Your task to perform on an android device: turn on javascript in the chrome app Image 0: 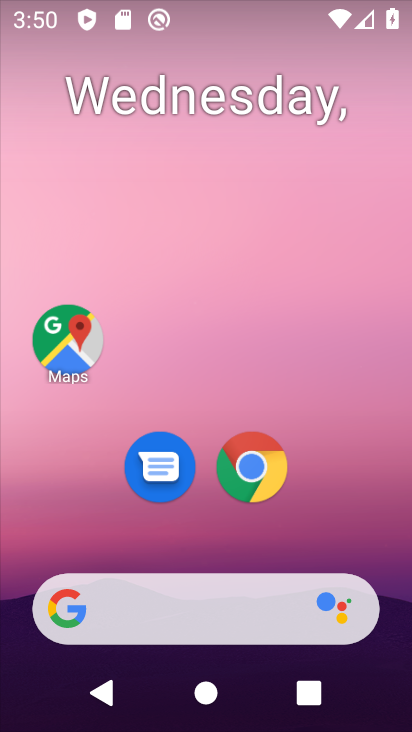
Step 0: click (276, 480)
Your task to perform on an android device: turn on javascript in the chrome app Image 1: 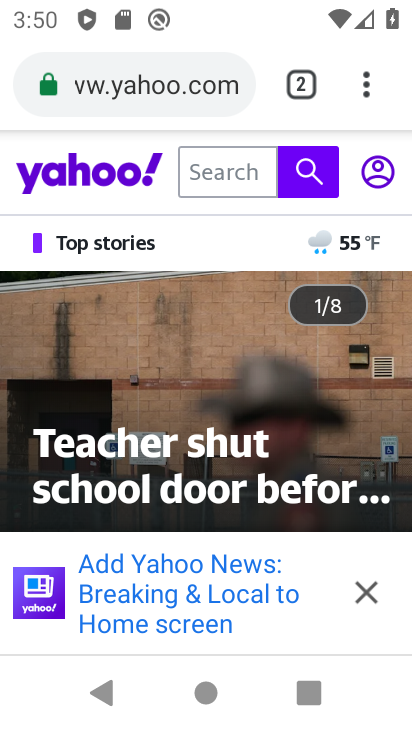
Step 1: click (363, 71)
Your task to perform on an android device: turn on javascript in the chrome app Image 2: 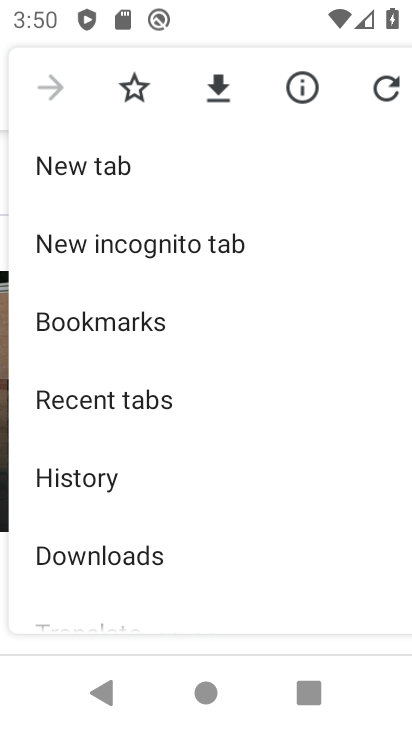
Step 2: drag from (217, 489) to (198, 0)
Your task to perform on an android device: turn on javascript in the chrome app Image 3: 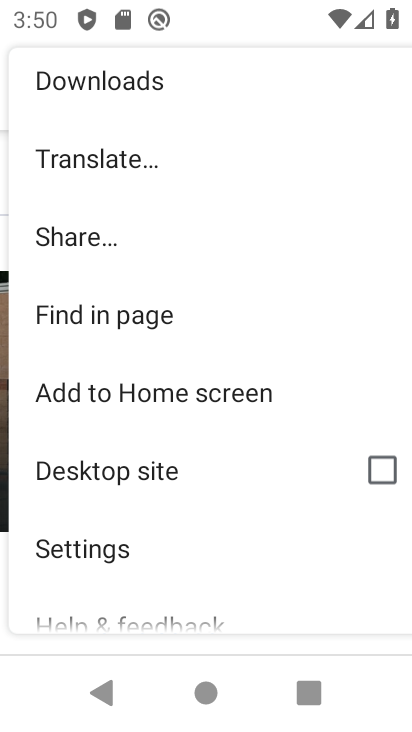
Step 3: click (130, 561)
Your task to perform on an android device: turn on javascript in the chrome app Image 4: 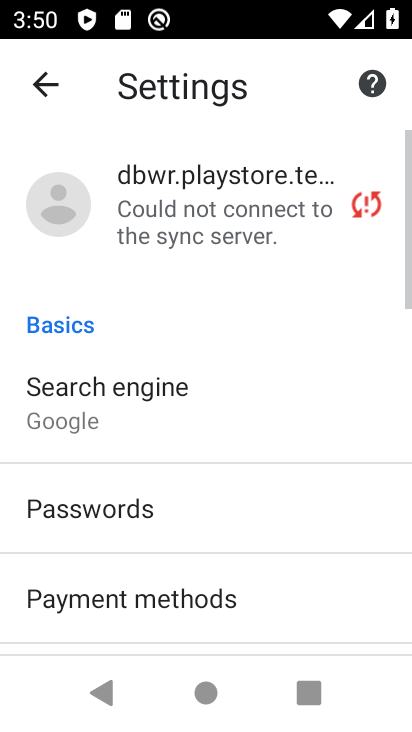
Step 4: drag from (286, 540) to (228, 149)
Your task to perform on an android device: turn on javascript in the chrome app Image 5: 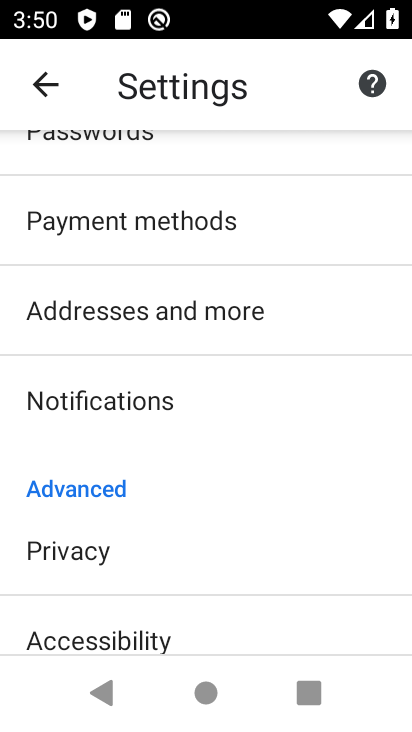
Step 5: drag from (216, 459) to (217, 156)
Your task to perform on an android device: turn on javascript in the chrome app Image 6: 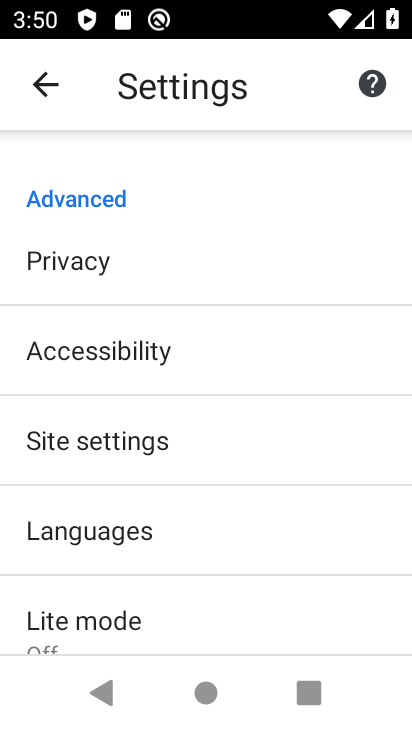
Step 6: click (168, 449)
Your task to perform on an android device: turn on javascript in the chrome app Image 7: 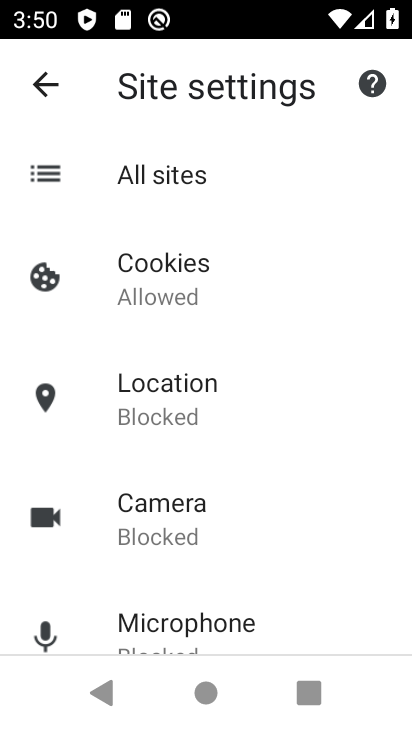
Step 7: drag from (260, 438) to (204, 100)
Your task to perform on an android device: turn on javascript in the chrome app Image 8: 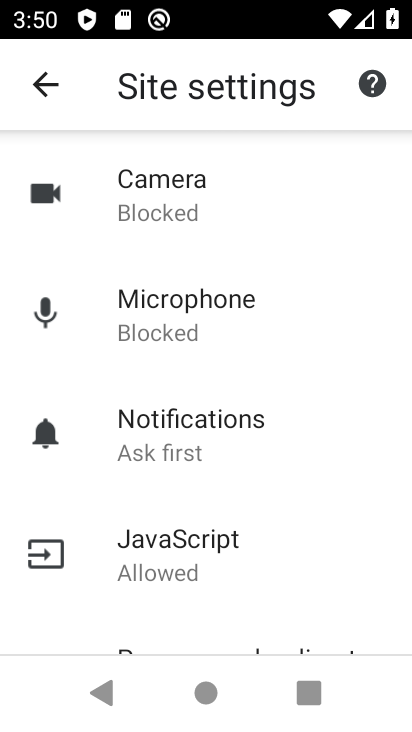
Step 8: click (240, 533)
Your task to perform on an android device: turn on javascript in the chrome app Image 9: 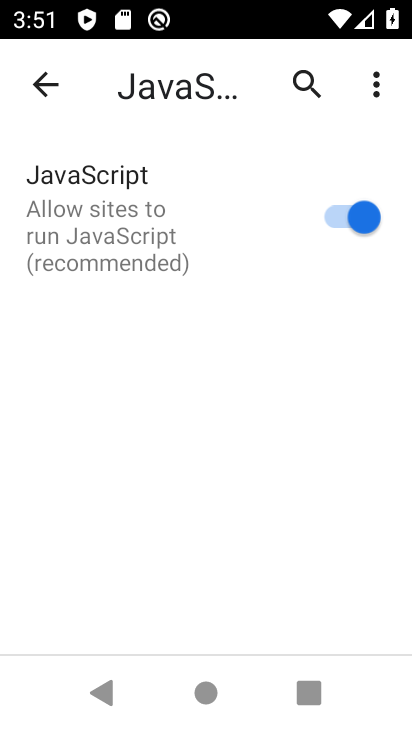
Step 9: task complete